Your task to perform on an android device: What's the weather going to be this weekend? Image 0: 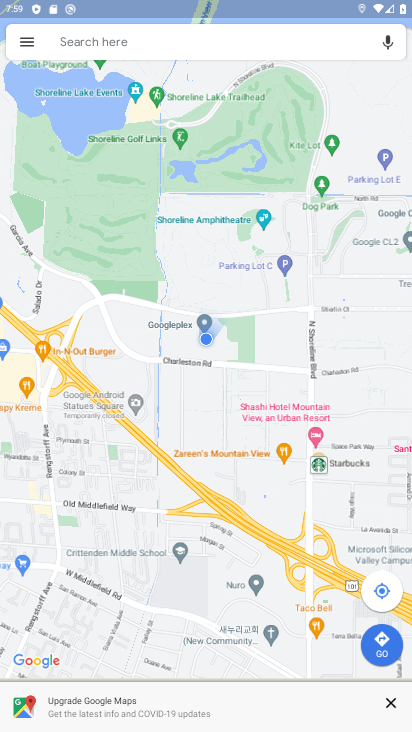
Step 0: press home button
Your task to perform on an android device: What's the weather going to be this weekend? Image 1: 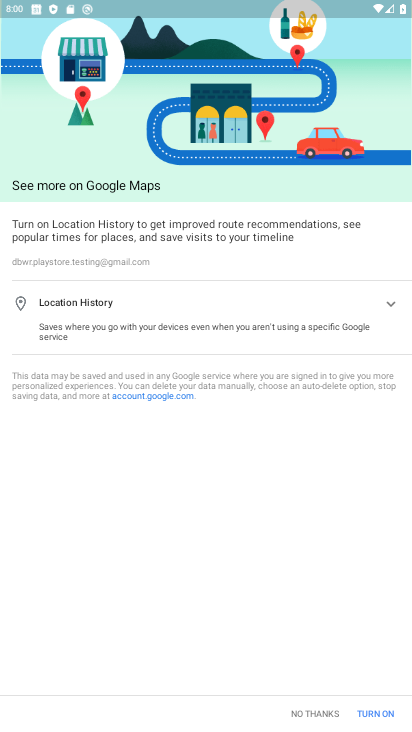
Step 1: click (329, 710)
Your task to perform on an android device: What's the weather going to be this weekend? Image 2: 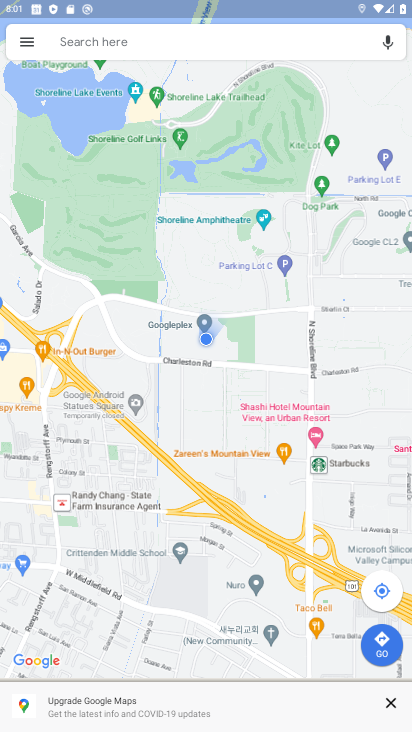
Step 2: press home button
Your task to perform on an android device: What's the weather going to be this weekend? Image 3: 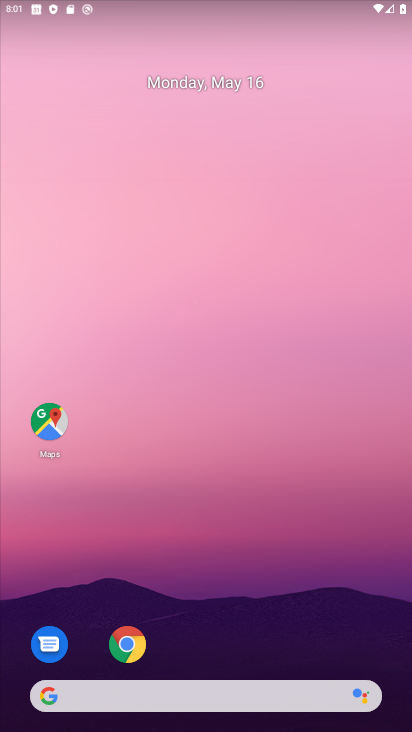
Step 3: click (269, 706)
Your task to perform on an android device: What's the weather going to be this weekend? Image 4: 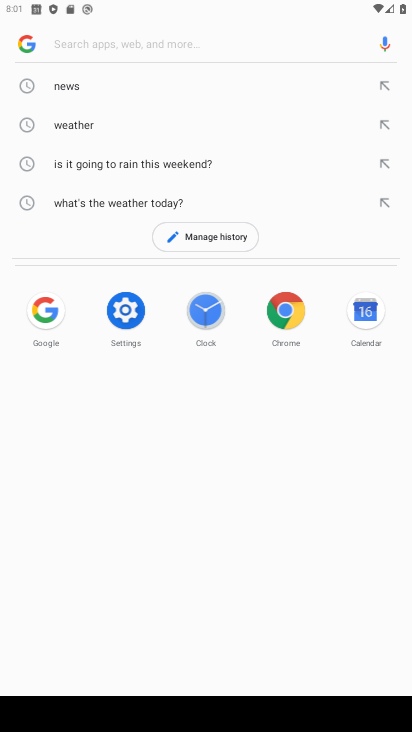
Step 4: type "What's the weather going to be this weekend?"
Your task to perform on an android device: What's the weather going to be this weekend? Image 5: 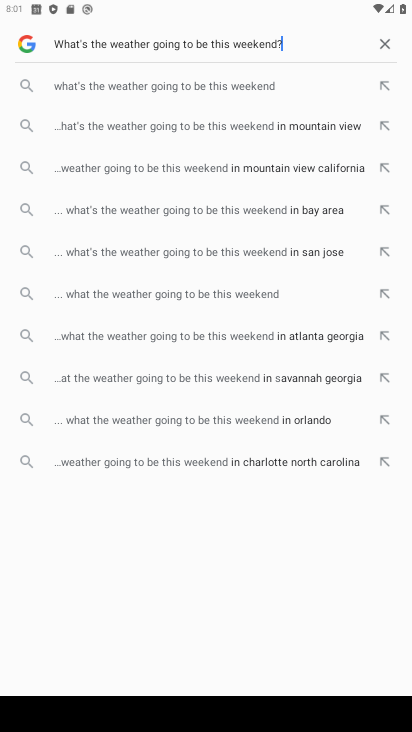
Step 5: click (265, 81)
Your task to perform on an android device: What's the weather going to be this weekend? Image 6: 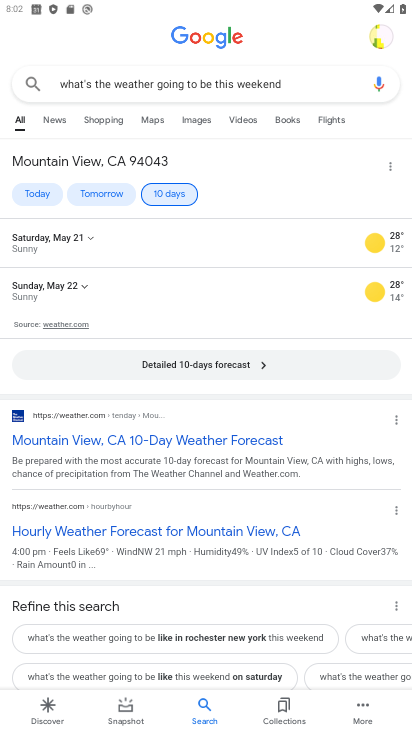
Step 6: task complete